Your task to perform on an android device: Open maps Image 0: 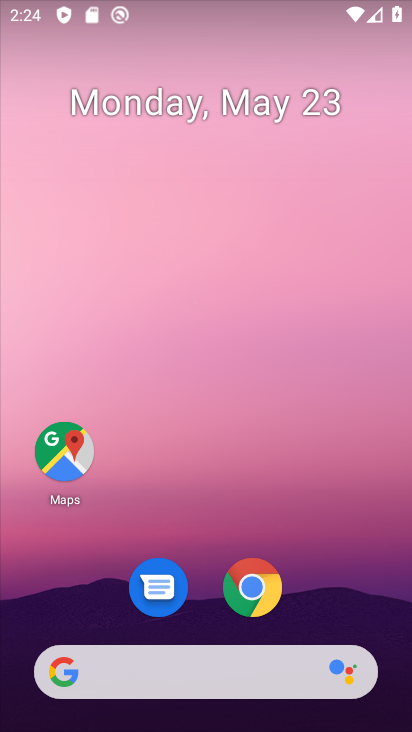
Step 0: click (63, 457)
Your task to perform on an android device: Open maps Image 1: 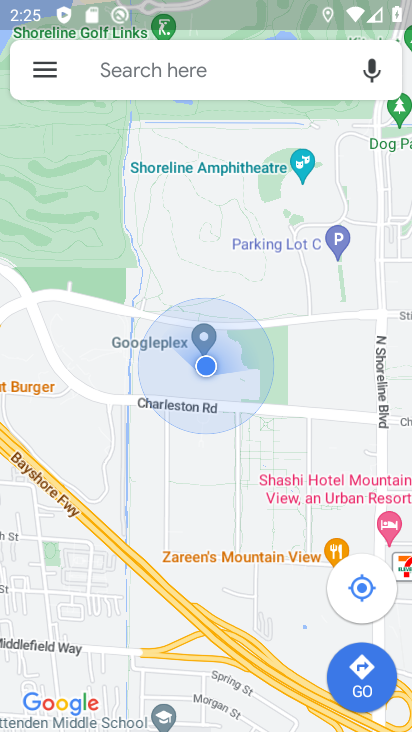
Step 1: task complete